Your task to perform on an android device: see creations saved in the google photos Image 0: 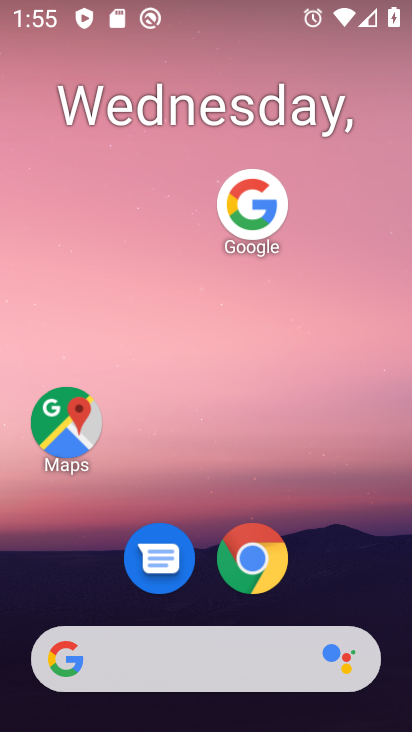
Step 0: drag from (372, 590) to (298, 75)
Your task to perform on an android device: see creations saved in the google photos Image 1: 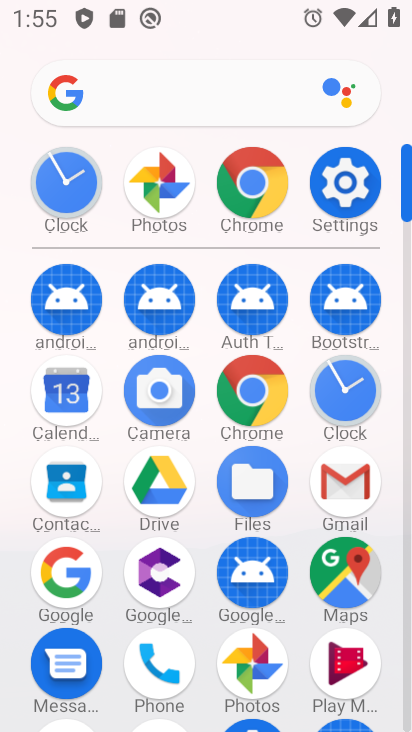
Step 1: click (177, 187)
Your task to perform on an android device: see creations saved in the google photos Image 2: 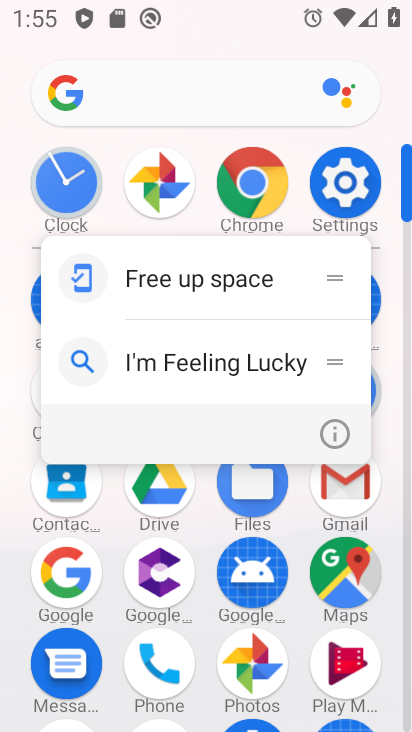
Step 2: click (177, 187)
Your task to perform on an android device: see creations saved in the google photos Image 3: 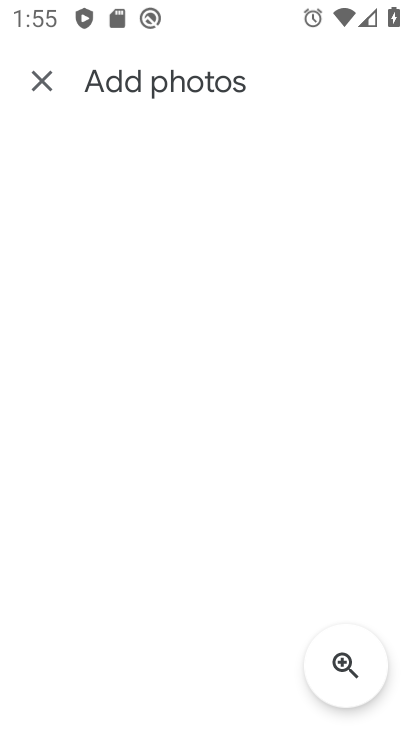
Step 3: click (34, 85)
Your task to perform on an android device: see creations saved in the google photos Image 4: 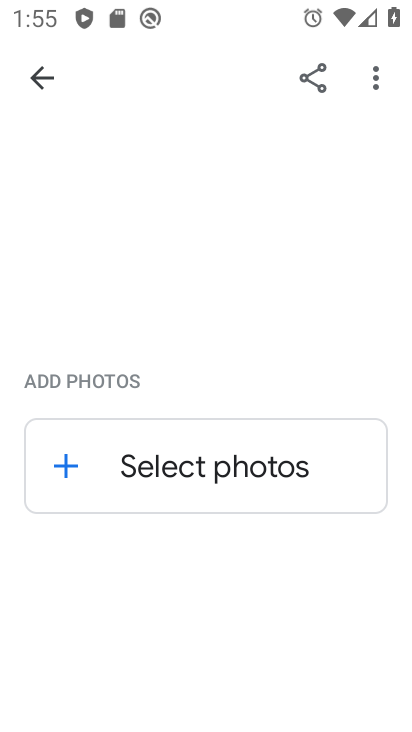
Step 4: click (34, 85)
Your task to perform on an android device: see creations saved in the google photos Image 5: 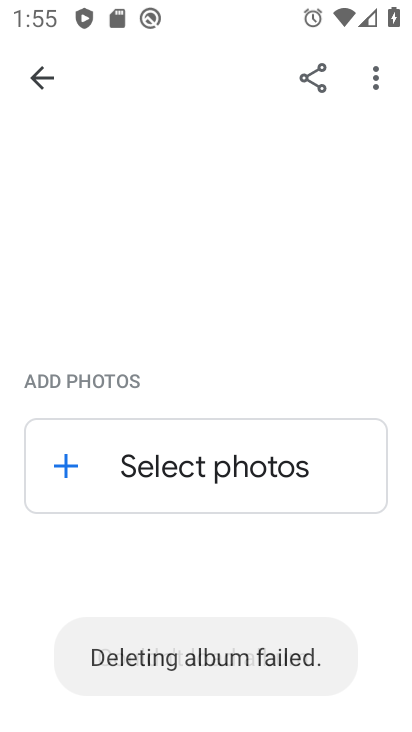
Step 5: click (44, 76)
Your task to perform on an android device: see creations saved in the google photos Image 6: 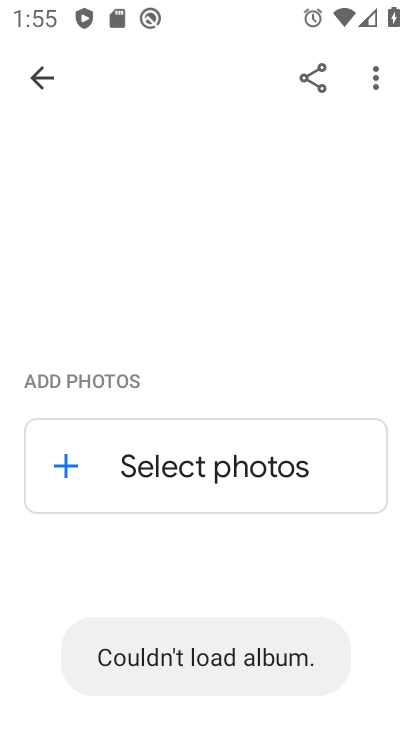
Step 6: task complete